Your task to perform on an android device: Open the calendar and show me this week's events? Image 0: 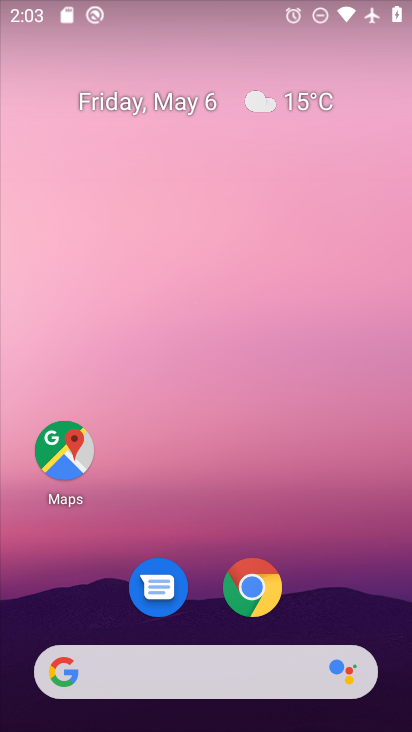
Step 0: drag from (328, 481) to (248, 79)
Your task to perform on an android device: Open the calendar and show me this week's events? Image 1: 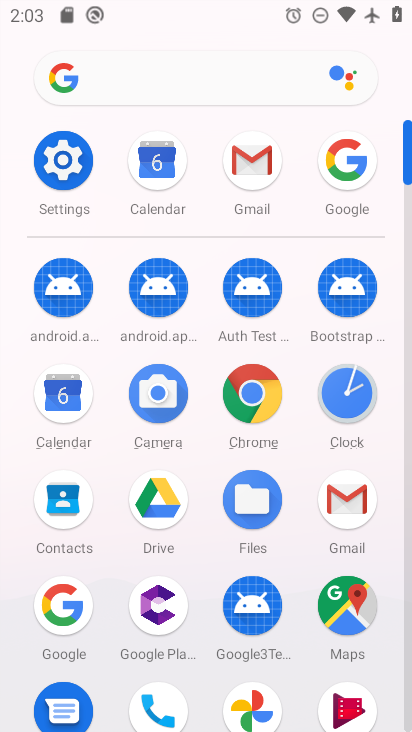
Step 1: click (62, 392)
Your task to perform on an android device: Open the calendar and show me this week's events? Image 2: 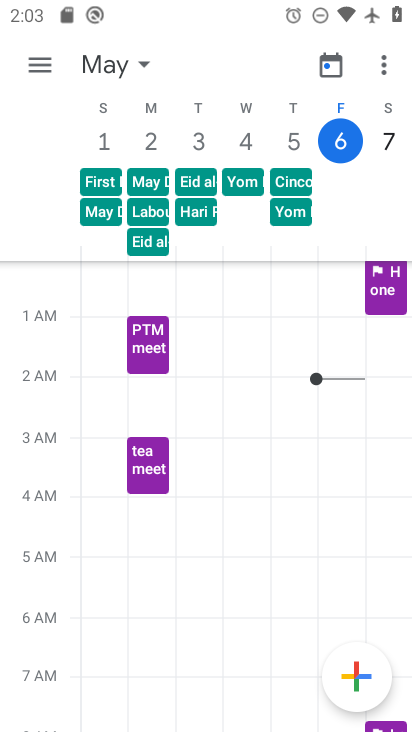
Step 2: task complete